Your task to perform on an android device: turn on priority inbox in the gmail app Image 0: 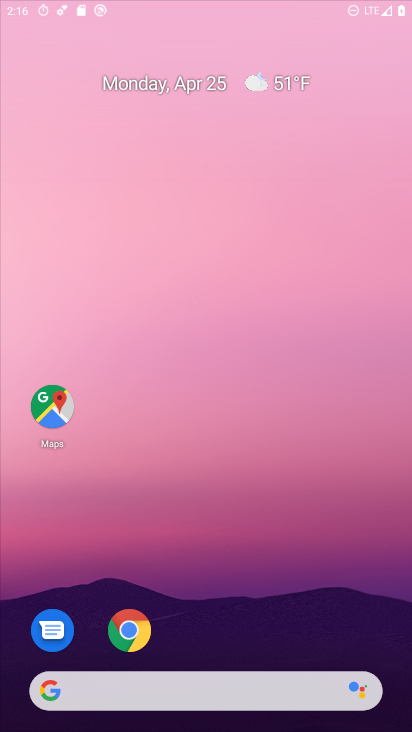
Step 0: drag from (267, 308) to (339, 75)
Your task to perform on an android device: turn on priority inbox in the gmail app Image 1: 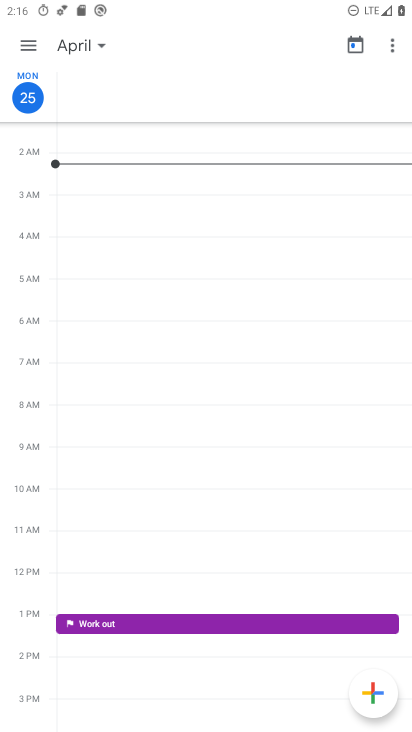
Step 1: press home button
Your task to perform on an android device: turn on priority inbox in the gmail app Image 2: 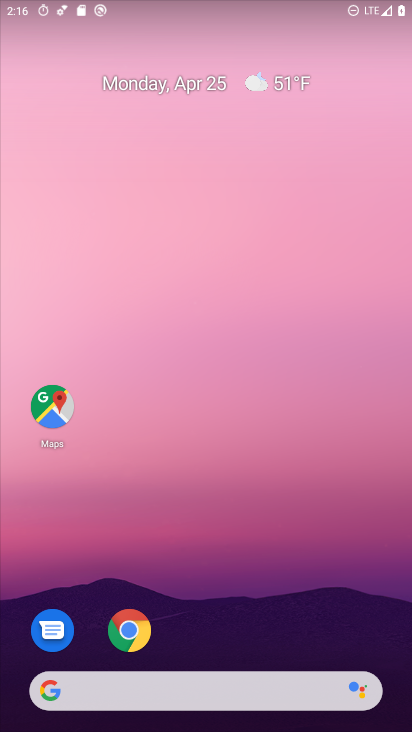
Step 2: drag from (187, 644) to (221, 163)
Your task to perform on an android device: turn on priority inbox in the gmail app Image 3: 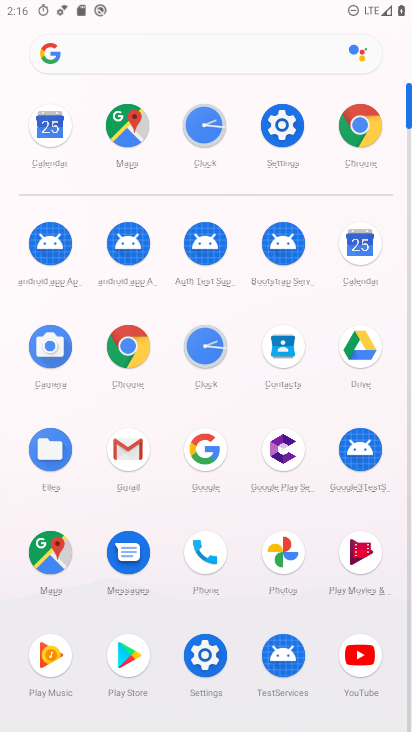
Step 3: click (125, 436)
Your task to perform on an android device: turn on priority inbox in the gmail app Image 4: 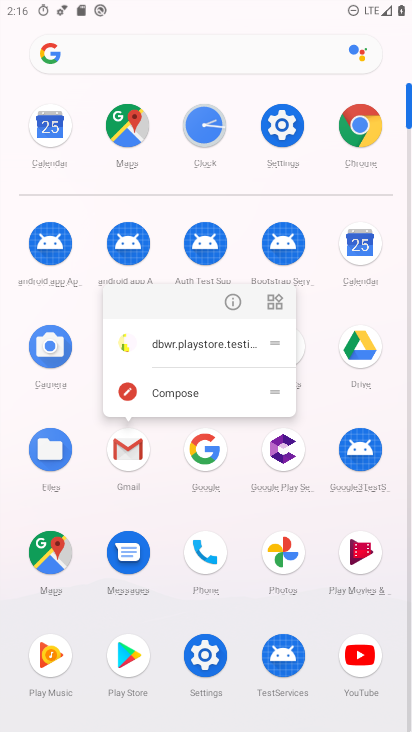
Step 4: click (239, 302)
Your task to perform on an android device: turn on priority inbox in the gmail app Image 5: 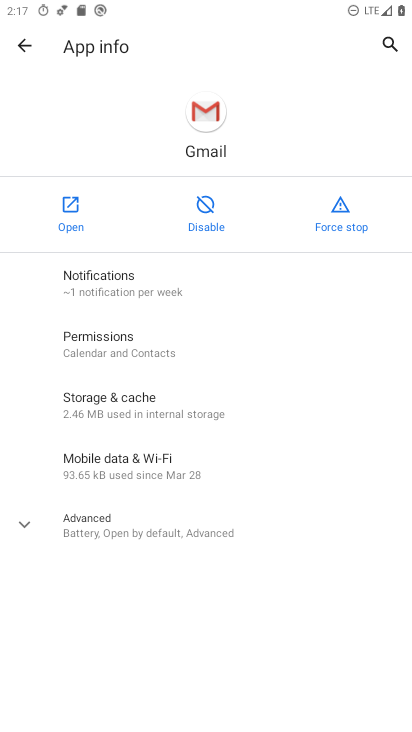
Step 5: click (55, 213)
Your task to perform on an android device: turn on priority inbox in the gmail app Image 6: 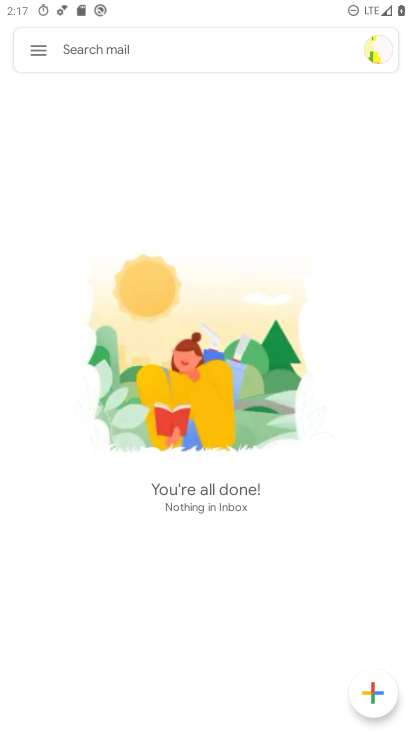
Step 6: drag from (213, 640) to (248, 268)
Your task to perform on an android device: turn on priority inbox in the gmail app Image 7: 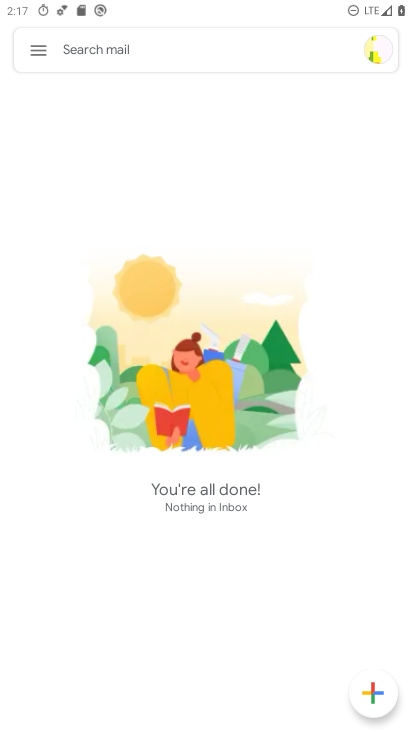
Step 7: click (35, 53)
Your task to perform on an android device: turn on priority inbox in the gmail app Image 8: 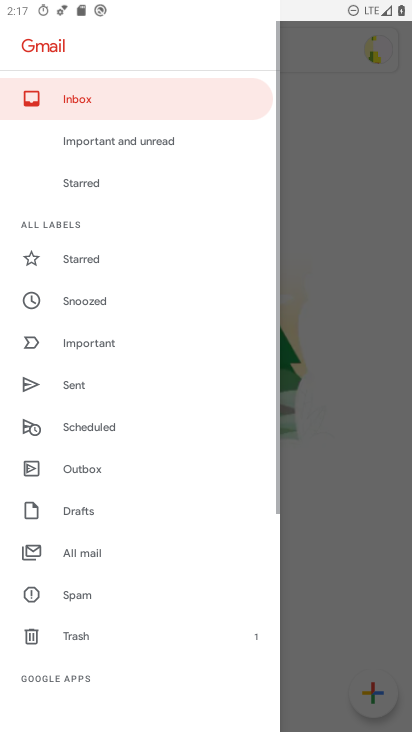
Step 8: drag from (100, 486) to (167, 41)
Your task to perform on an android device: turn on priority inbox in the gmail app Image 9: 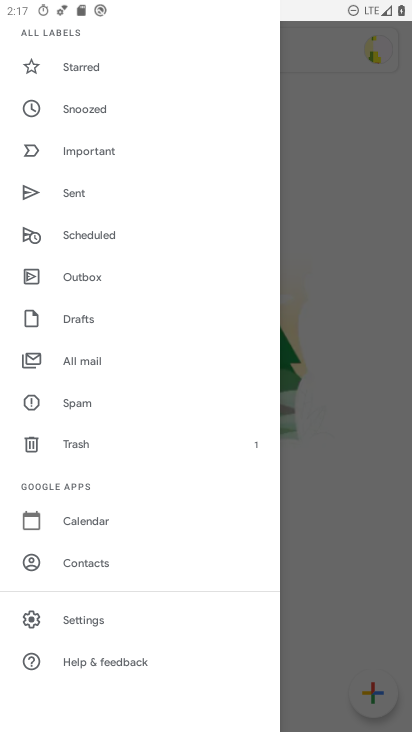
Step 9: click (123, 620)
Your task to perform on an android device: turn on priority inbox in the gmail app Image 10: 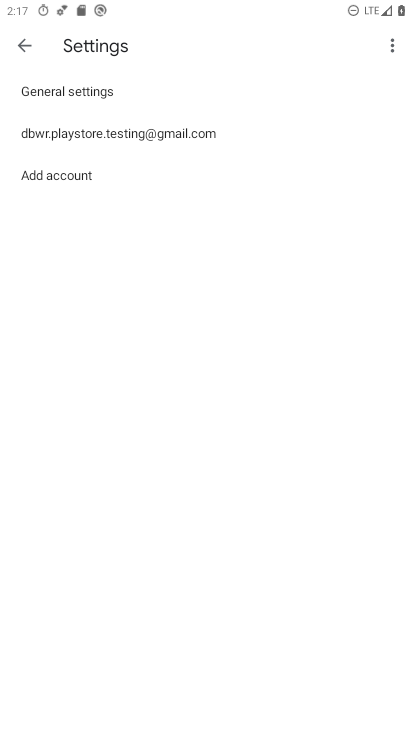
Step 10: click (179, 117)
Your task to perform on an android device: turn on priority inbox in the gmail app Image 11: 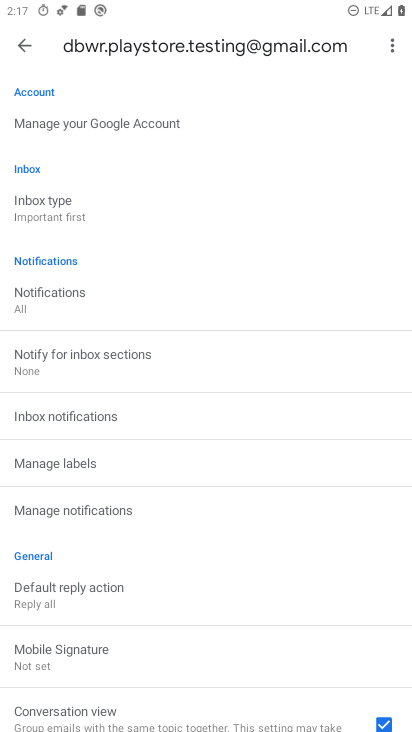
Step 11: click (56, 208)
Your task to perform on an android device: turn on priority inbox in the gmail app Image 12: 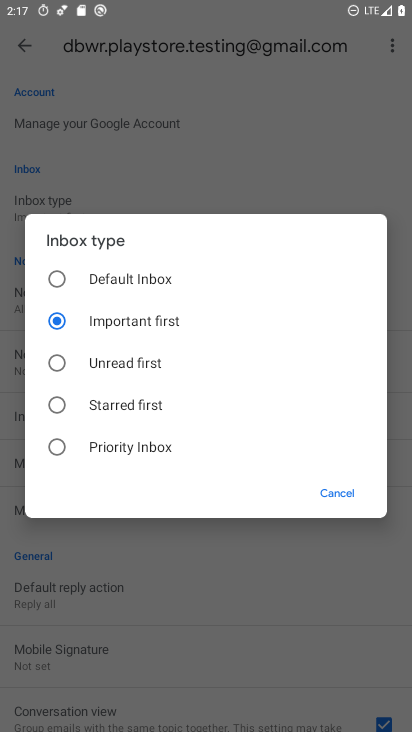
Step 12: click (141, 451)
Your task to perform on an android device: turn on priority inbox in the gmail app Image 13: 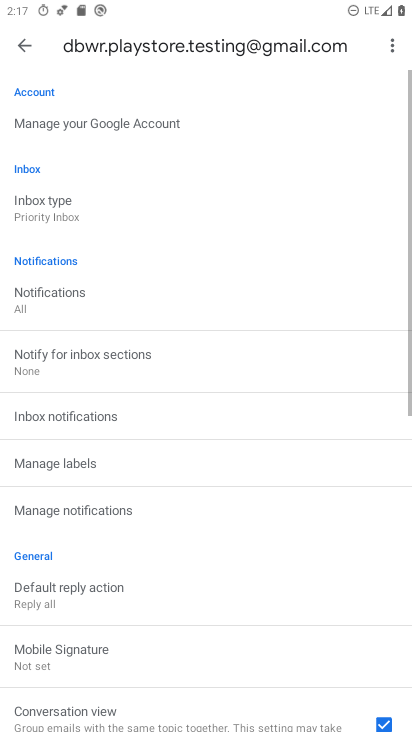
Step 13: task complete